Your task to perform on an android device: change the clock display to show seconds Image 0: 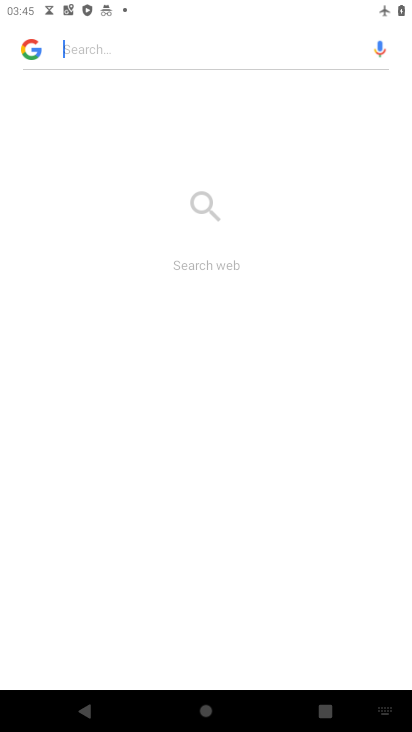
Step 0: press back button
Your task to perform on an android device: change the clock display to show seconds Image 1: 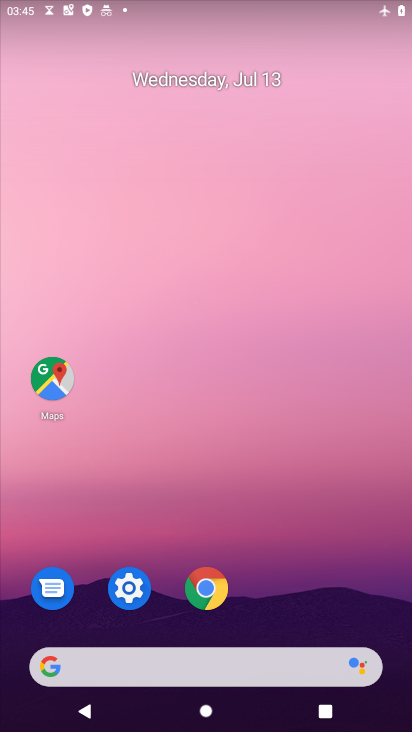
Step 1: drag from (226, 619) to (119, 80)
Your task to perform on an android device: change the clock display to show seconds Image 2: 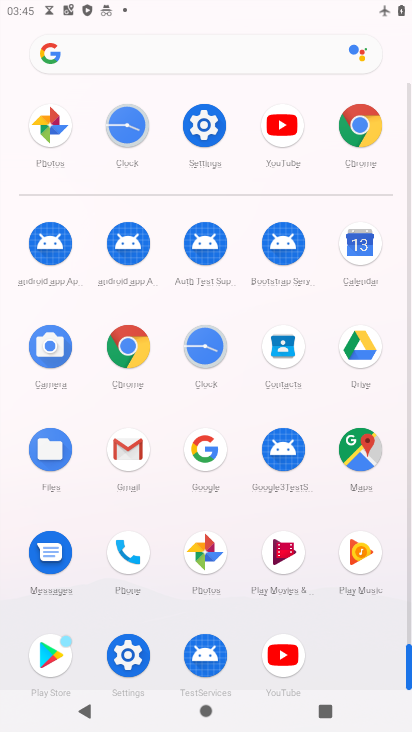
Step 2: click (187, 340)
Your task to perform on an android device: change the clock display to show seconds Image 3: 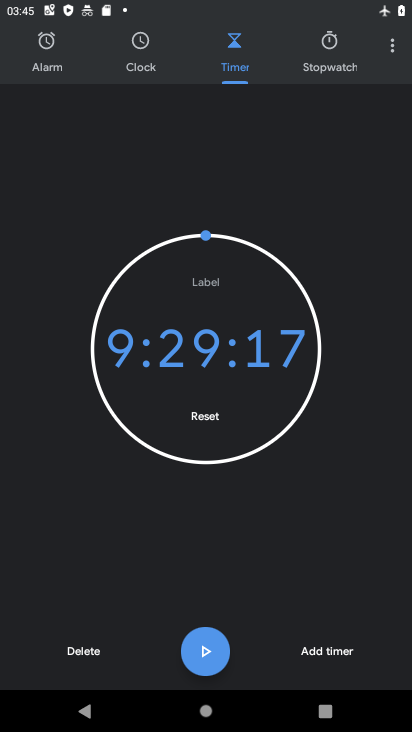
Step 3: click (380, 47)
Your task to perform on an android device: change the clock display to show seconds Image 4: 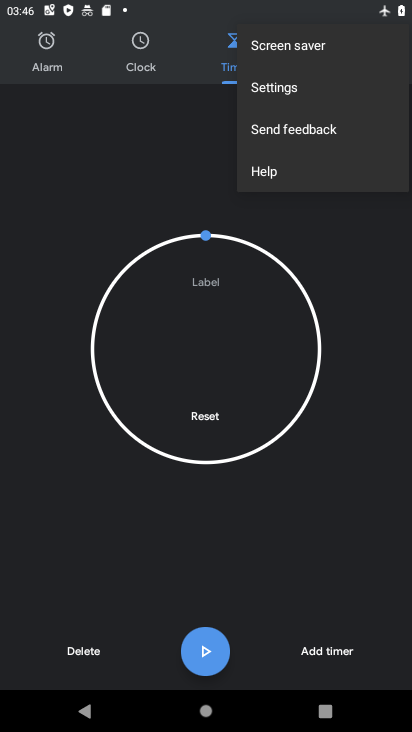
Step 4: click (260, 87)
Your task to perform on an android device: change the clock display to show seconds Image 5: 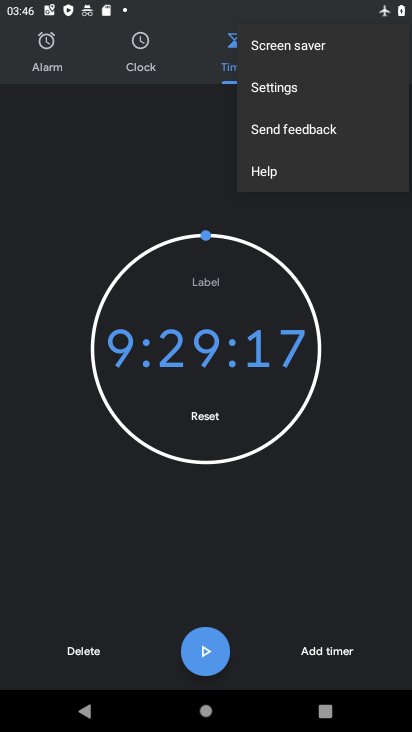
Step 5: click (261, 86)
Your task to perform on an android device: change the clock display to show seconds Image 6: 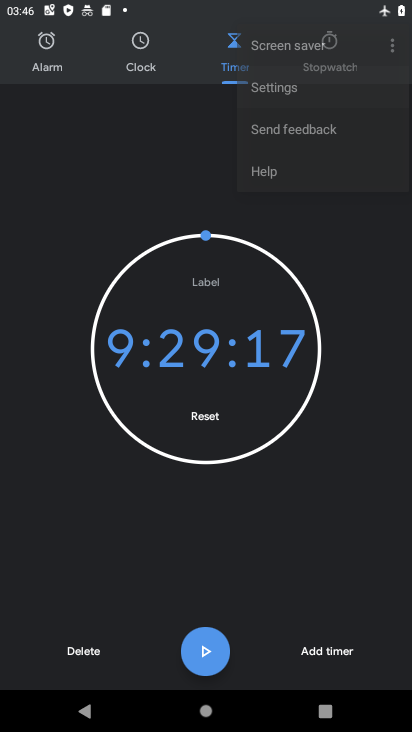
Step 6: click (262, 86)
Your task to perform on an android device: change the clock display to show seconds Image 7: 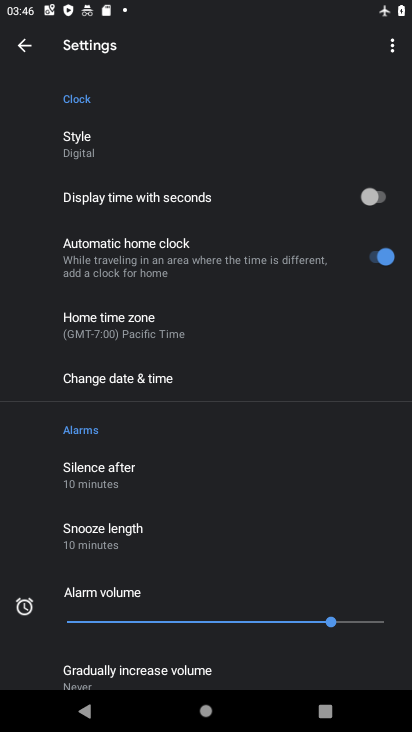
Step 7: click (379, 198)
Your task to perform on an android device: change the clock display to show seconds Image 8: 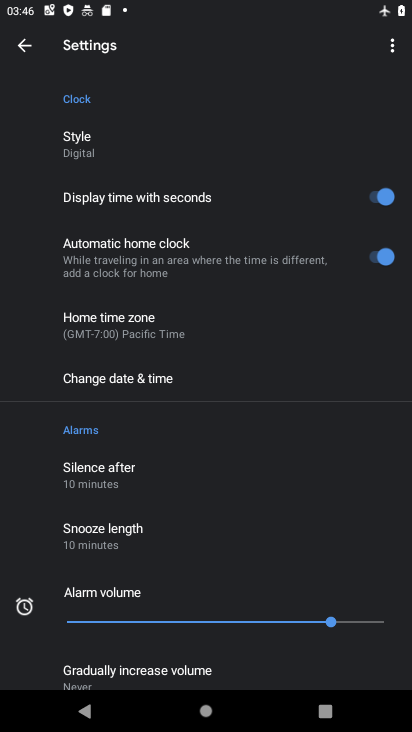
Step 8: task complete